Your task to perform on an android device: Set the phone to "Do not disturb". Image 0: 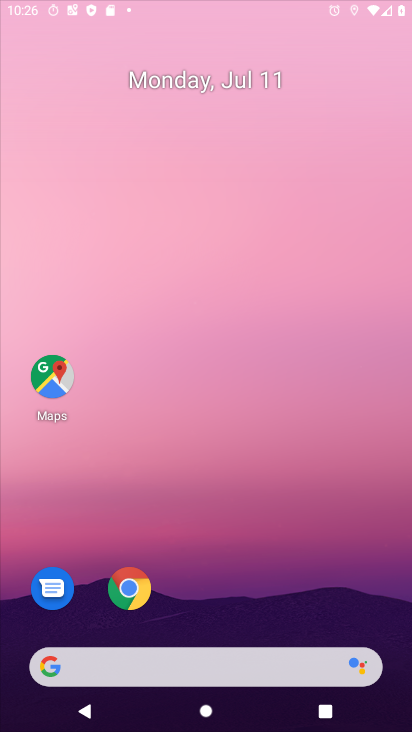
Step 0: drag from (213, 614) to (311, 3)
Your task to perform on an android device: Set the phone to "Do not disturb". Image 1: 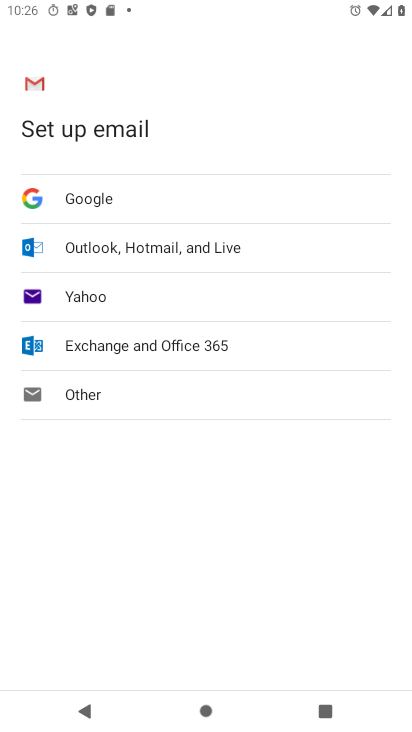
Step 1: press back button
Your task to perform on an android device: Set the phone to "Do not disturb". Image 2: 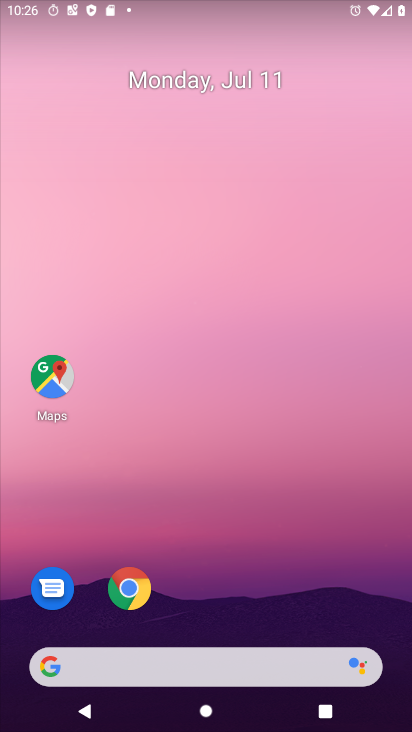
Step 2: drag from (319, 10) to (217, 565)
Your task to perform on an android device: Set the phone to "Do not disturb". Image 3: 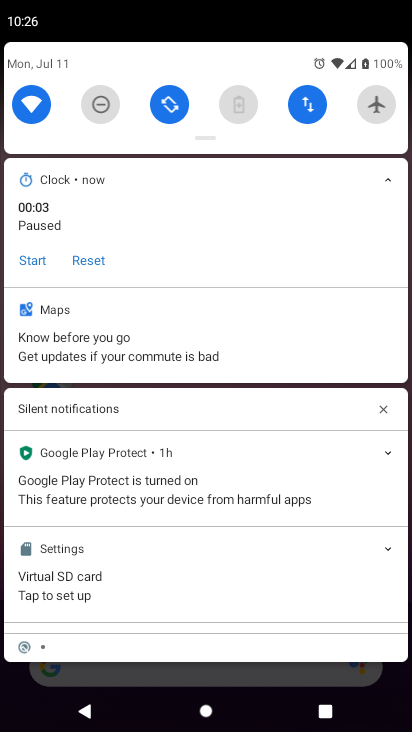
Step 3: click (96, 105)
Your task to perform on an android device: Set the phone to "Do not disturb". Image 4: 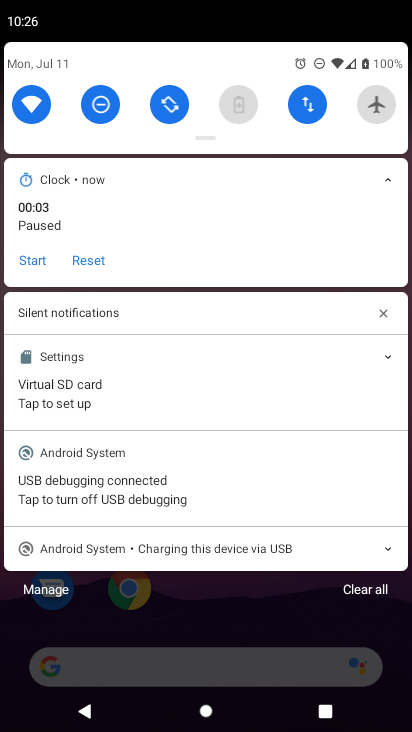
Step 4: task complete